Your task to perform on an android device: Go to internet settings Image 0: 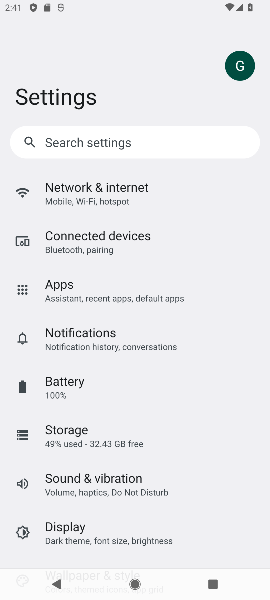
Step 0: click (117, 186)
Your task to perform on an android device: Go to internet settings Image 1: 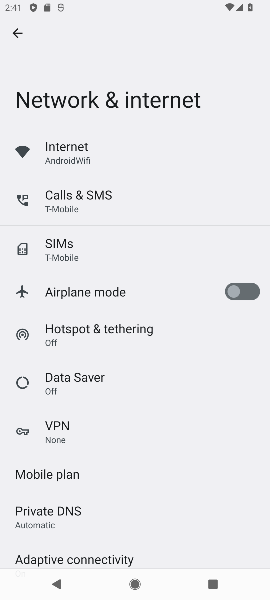
Step 1: click (68, 160)
Your task to perform on an android device: Go to internet settings Image 2: 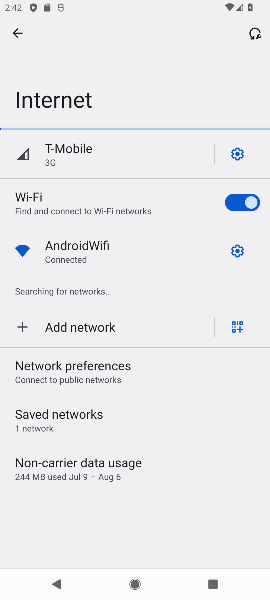
Step 2: task complete